Your task to perform on an android device: Toggle the flashlight Image 0: 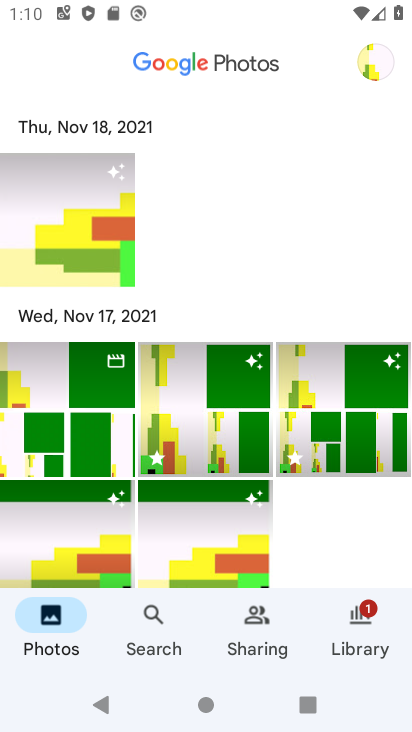
Step 0: press home button
Your task to perform on an android device: Toggle the flashlight Image 1: 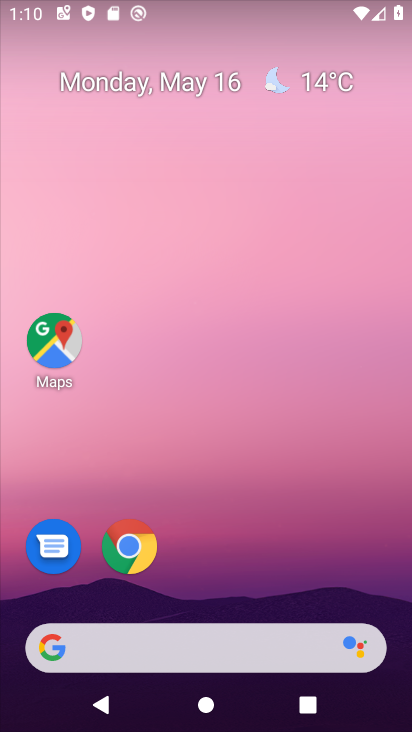
Step 1: drag from (273, 669) to (299, 200)
Your task to perform on an android device: Toggle the flashlight Image 2: 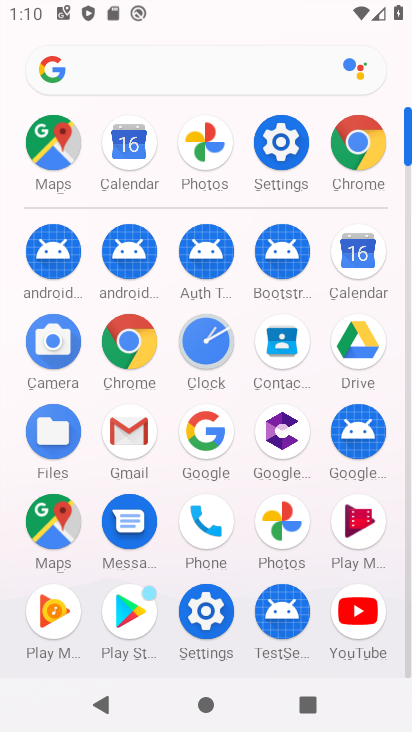
Step 2: click (262, 157)
Your task to perform on an android device: Toggle the flashlight Image 3: 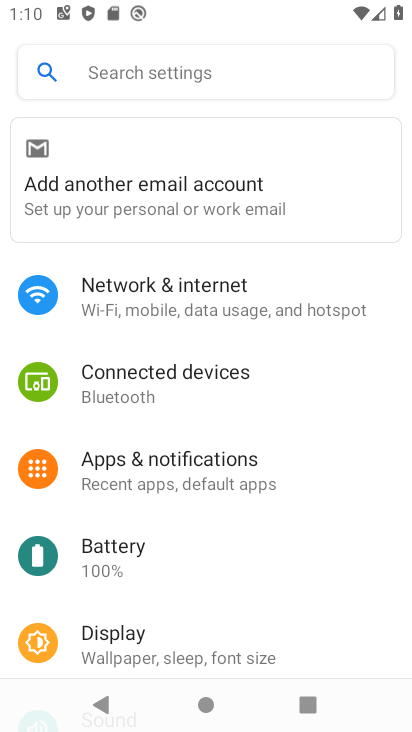
Step 3: click (169, 64)
Your task to perform on an android device: Toggle the flashlight Image 4: 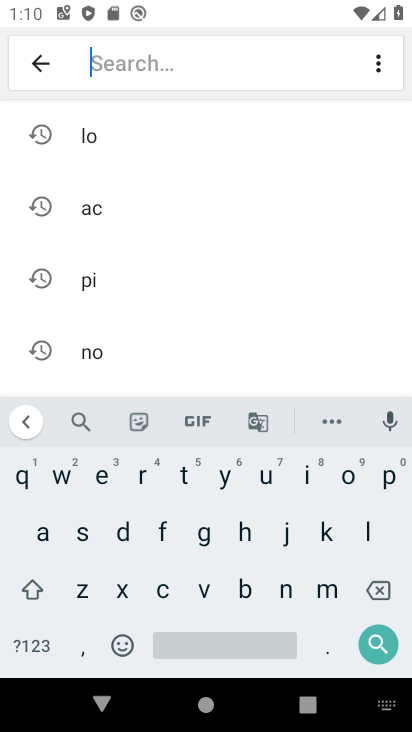
Step 4: click (164, 524)
Your task to perform on an android device: Toggle the flashlight Image 5: 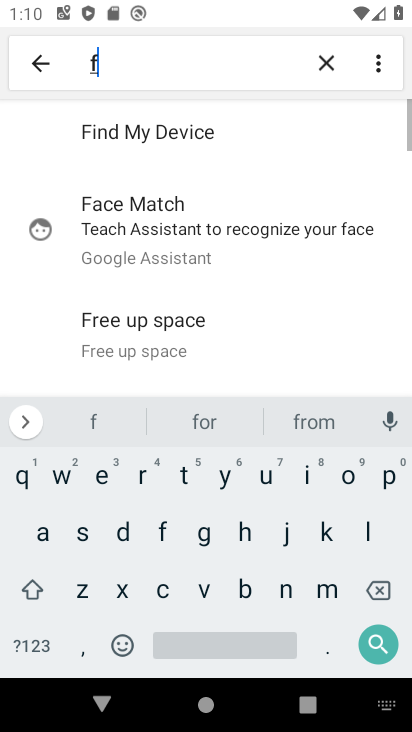
Step 5: click (368, 518)
Your task to perform on an android device: Toggle the flashlight Image 6: 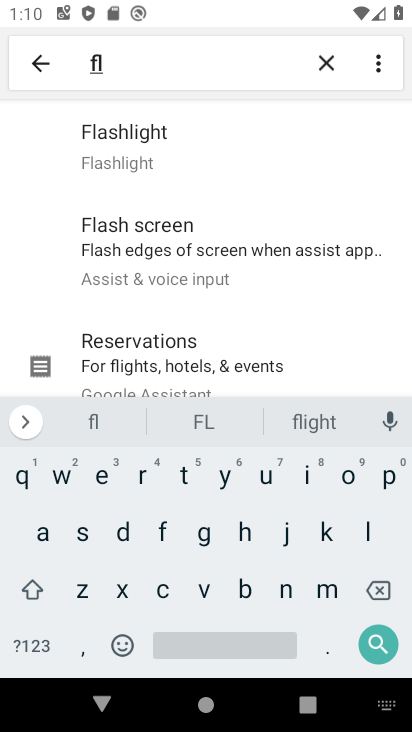
Step 6: click (141, 173)
Your task to perform on an android device: Toggle the flashlight Image 7: 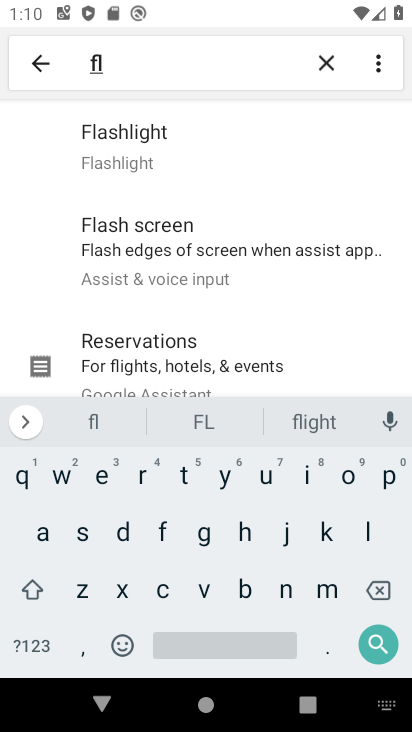
Step 7: task complete